Your task to perform on an android device: Go to ESPN.com Image 0: 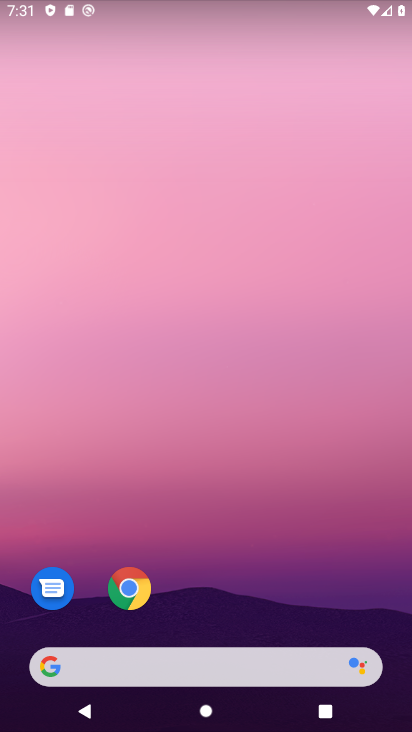
Step 0: click (121, 577)
Your task to perform on an android device: Go to ESPN.com Image 1: 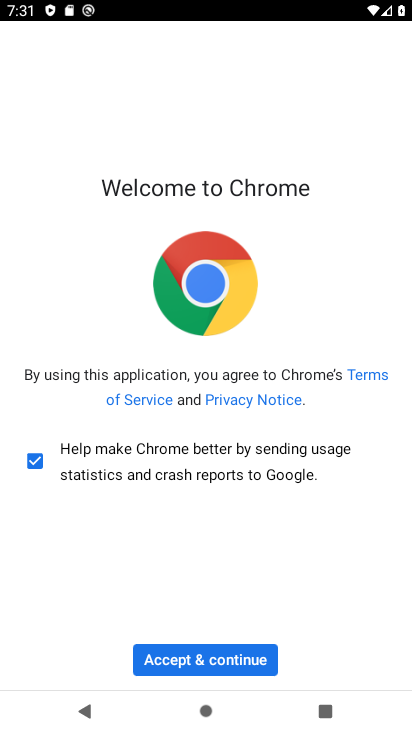
Step 1: click (199, 659)
Your task to perform on an android device: Go to ESPN.com Image 2: 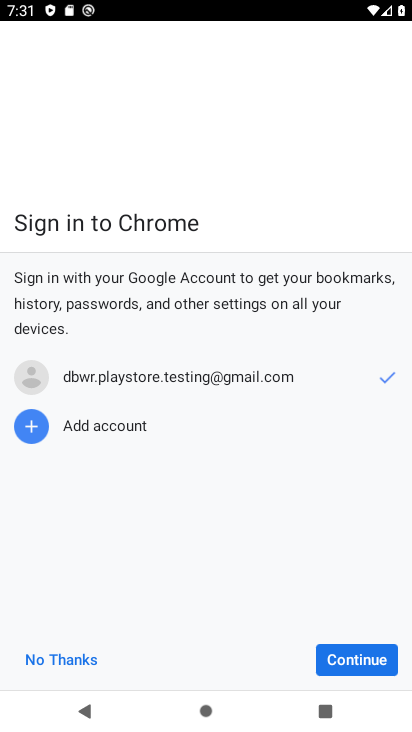
Step 2: click (369, 652)
Your task to perform on an android device: Go to ESPN.com Image 3: 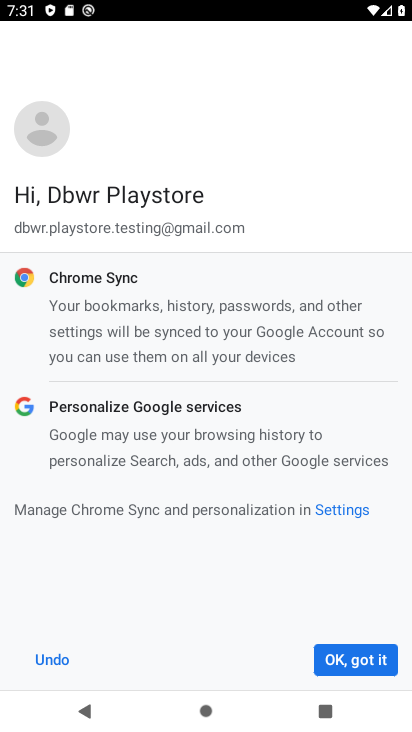
Step 3: click (351, 663)
Your task to perform on an android device: Go to ESPN.com Image 4: 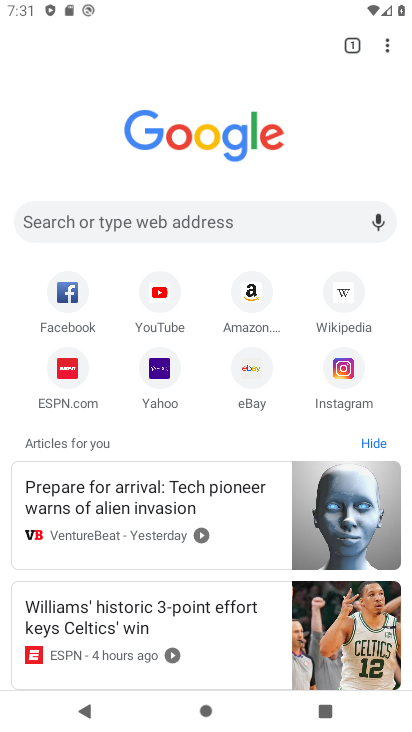
Step 4: click (73, 361)
Your task to perform on an android device: Go to ESPN.com Image 5: 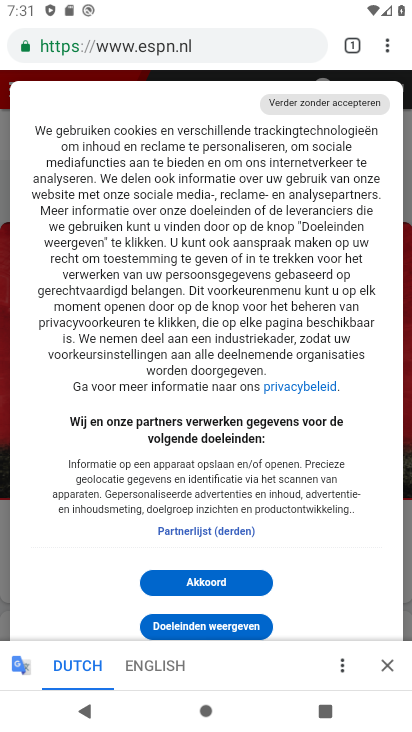
Step 5: click (378, 666)
Your task to perform on an android device: Go to ESPN.com Image 6: 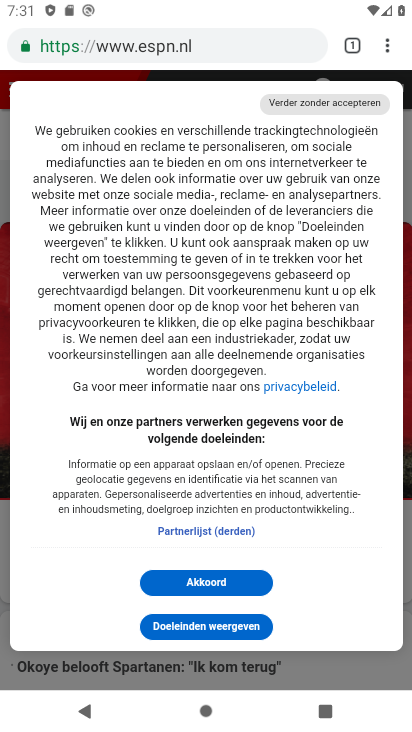
Step 6: click (202, 578)
Your task to perform on an android device: Go to ESPN.com Image 7: 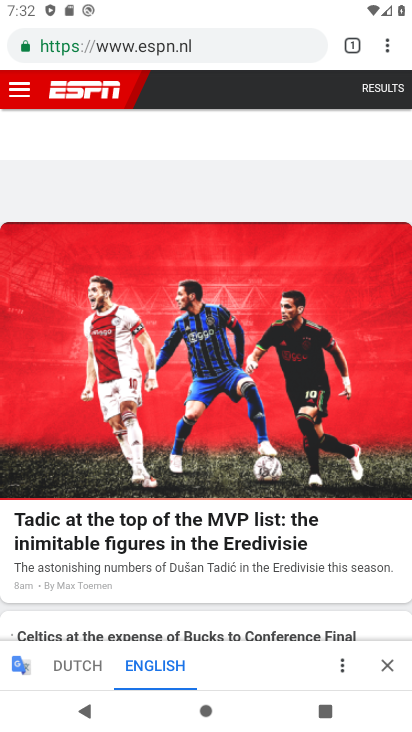
Step 7: task complete